Your task to perform on an android device: Go to privacy settings Image 0: 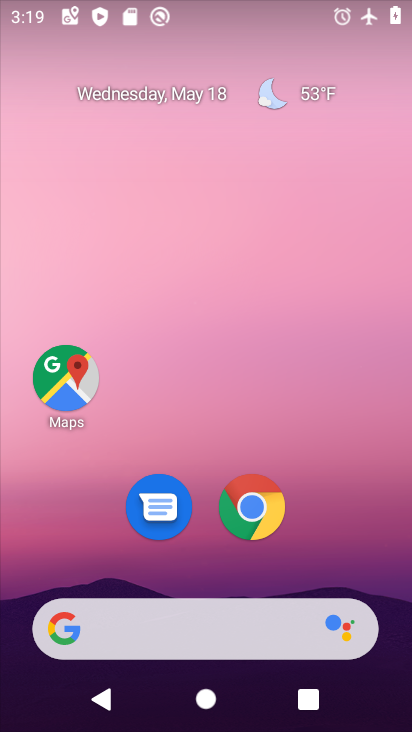
Step 0: drag from (354, 559) to (255, 83)
Your task to perform on an android device: Go to privacy settings Image 1: 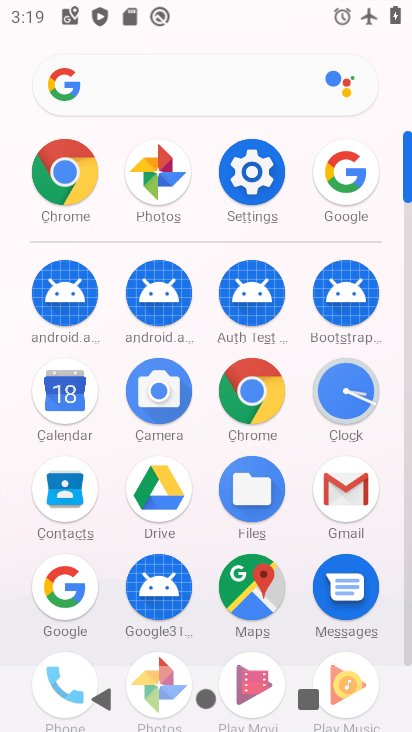
Step 1: click (252, 173)
Your task to perform on an android device: Go to privacy settings Image 2: 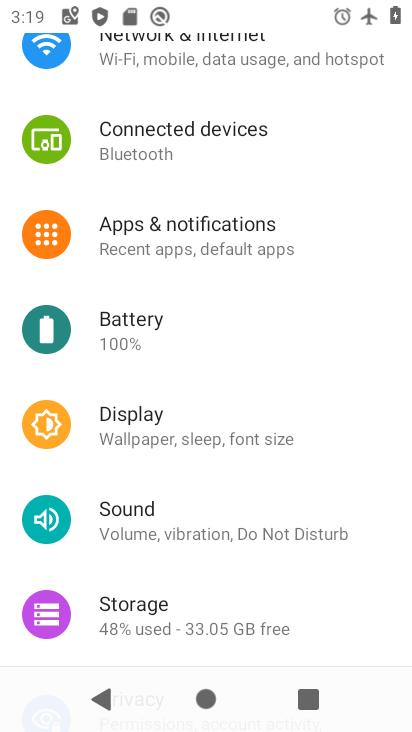
Step 2: drag from (178, 553) to (229, 419)
Your task to perform on an android device: Go to privacy settings Image 3: 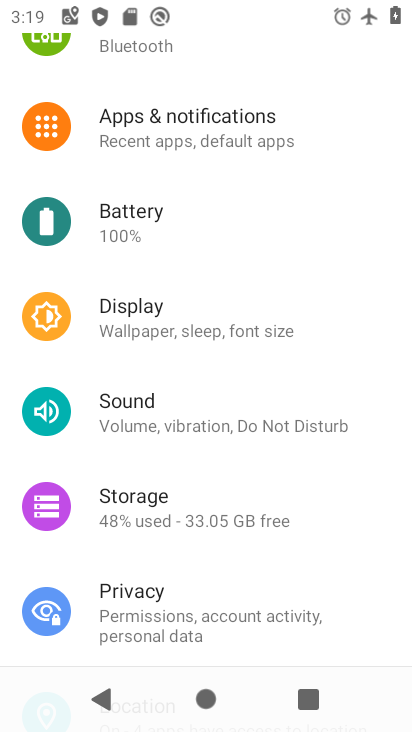
Step 3: drag from (201, 580) to (299, 398)
Your task to perform on an android device: Go to privacy settings Image 4: 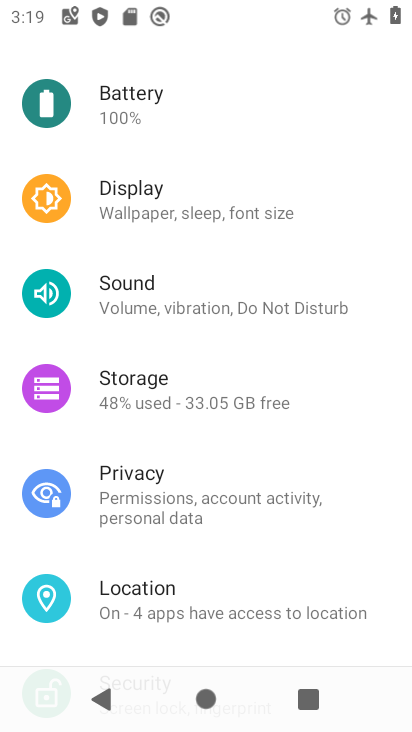
Step 4: click (134, 510)
Your task to perform on an android device: Go to privacy settings Image 5: 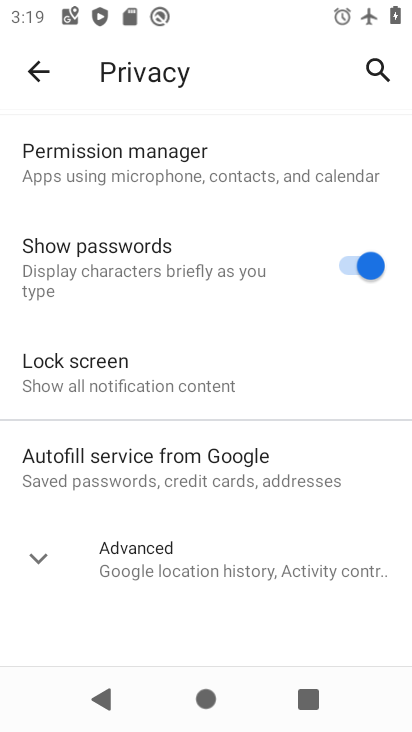
Step 5: task complete